Your task to perform on an android device: open sync settings in chrome Image 0: 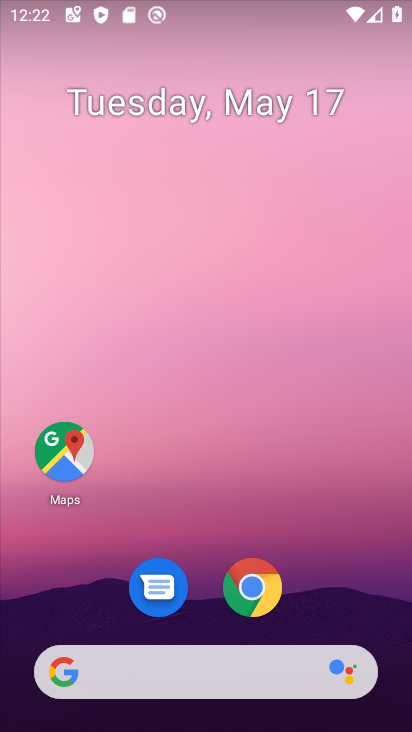
Step 0: click (253, 600)
Your task to perform on an android device: open sync settings in chrome Image 1: 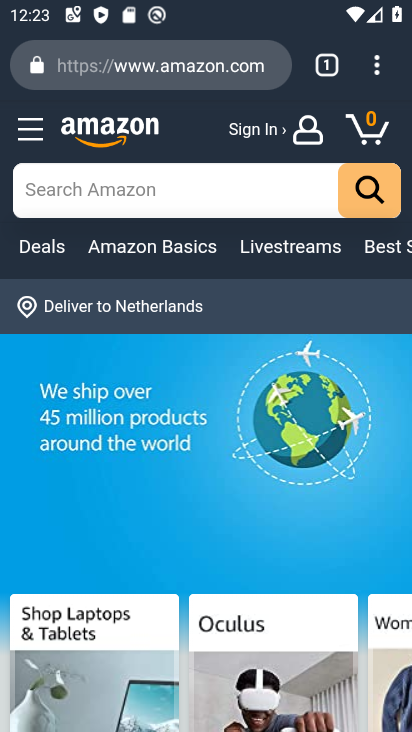
Step 1: click (376, 56)
Your task to perform on an android device: open sync settings in chrome Image 2: 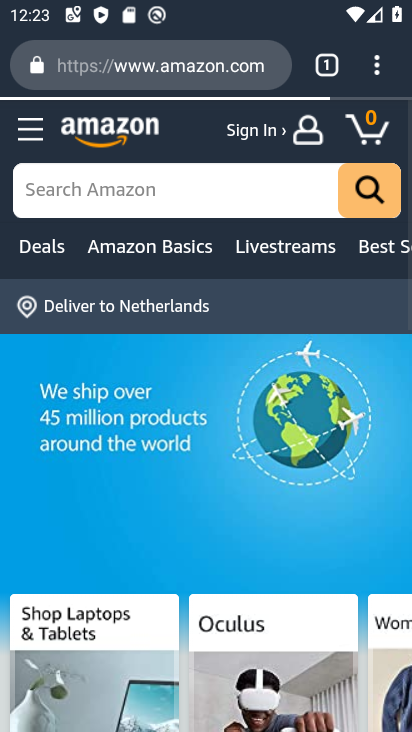
Step 2: drag from (377, 61) to (150, 640)
Your task to perform on an android device: open sync settings in chrome Image 3: 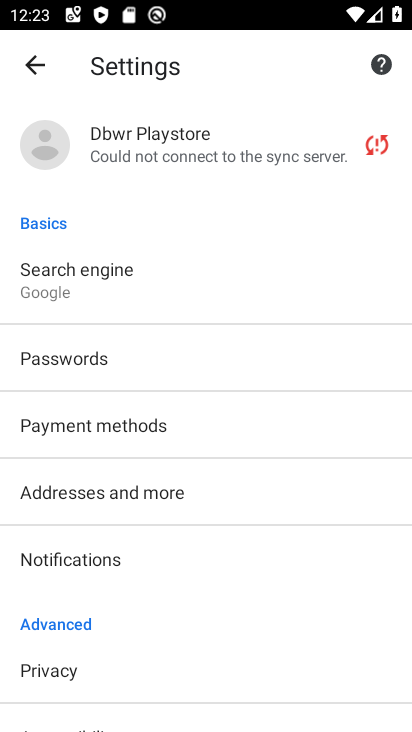
Step 3: click (133, 135)
Your task to perform on an android device: open sync settings in chrome Image 4: 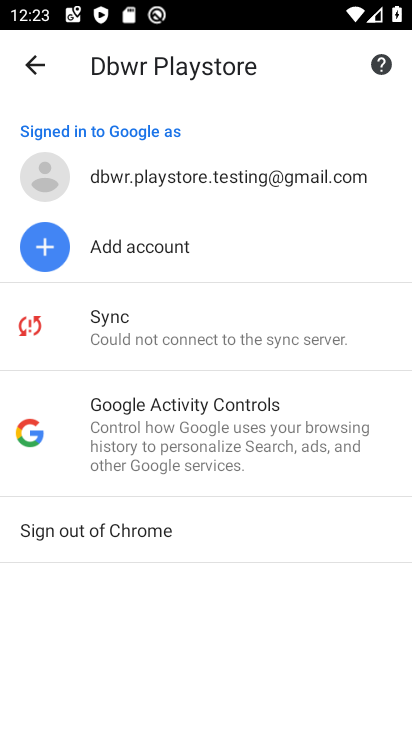
Step 4: click (162, 312)
Your task to perform on an android device: open sync settings in chrome Image 5: 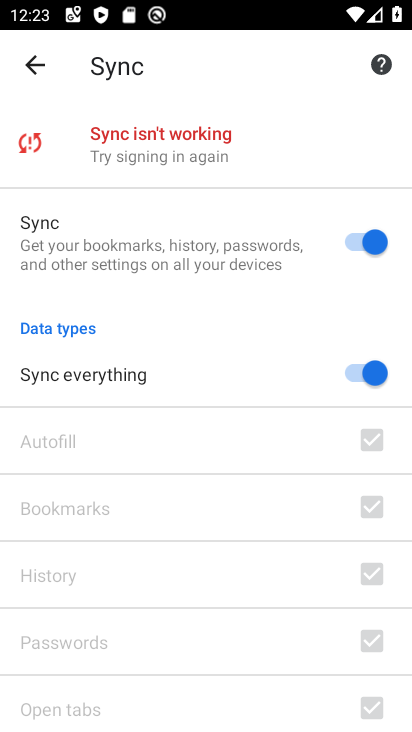
Step 5: task complete